Your task to perform on an android device: turn on translation in the chrome app Image 0: 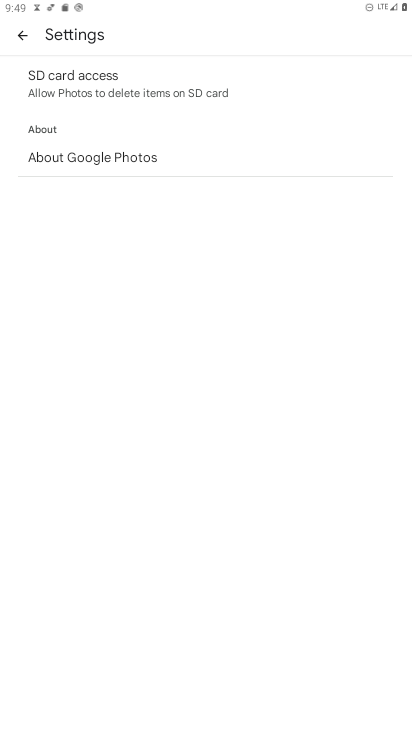
Step 0: press home button
Your task to perform on an android device: turn on translation in the chrome app Image 1: 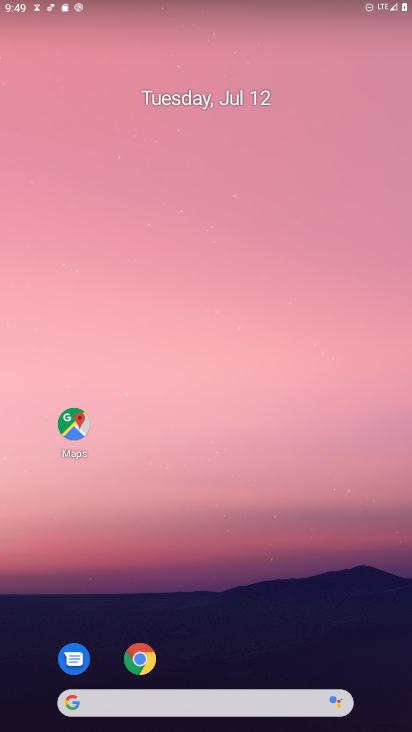
Step 1: click (140, 659)
Your task to perform on an android device: turn on translation in the chrome app Image 2: 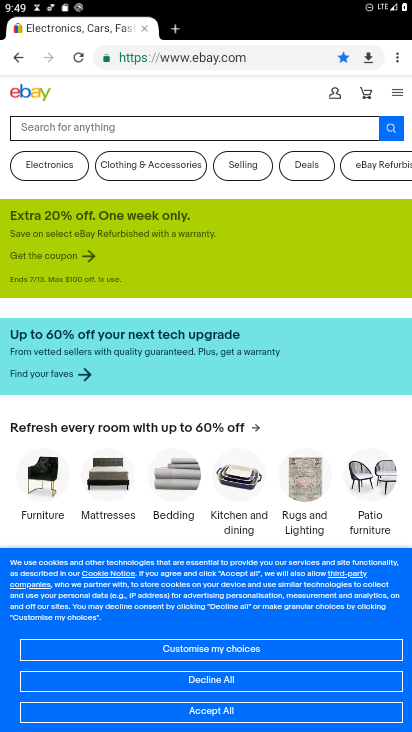
Step 2: click (396, 57)
Your task to perform on an android device: turn on translation in the chrome app Image 3: 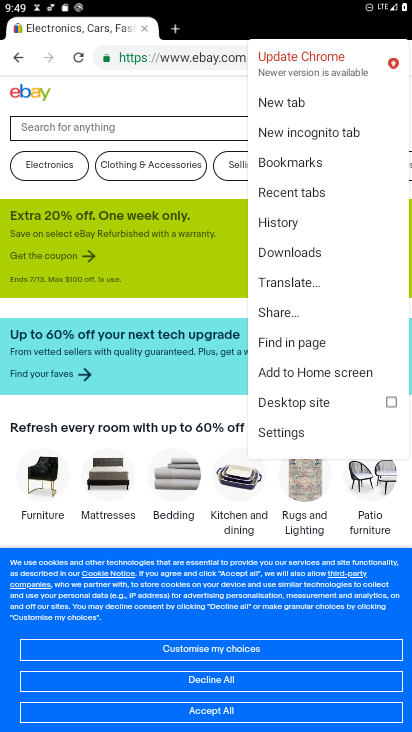
Step 3: click (295, 431)
Your task to perform on an android device: turn on translation in the chrome app Image 4: 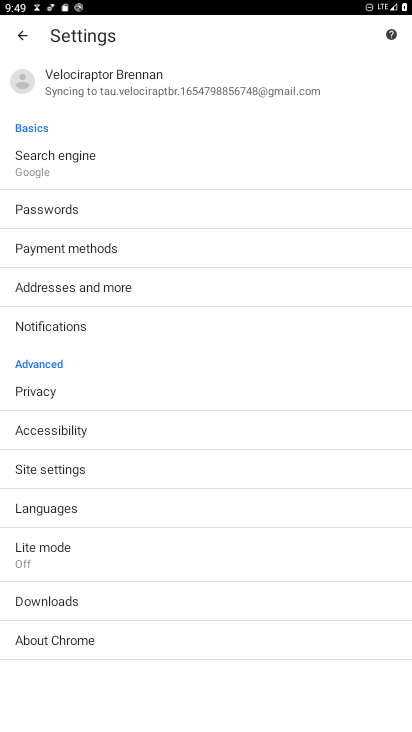
Step 4: click (53, 509)
Your task to perform on an android device: turn on translation in the chrome app Image 5: 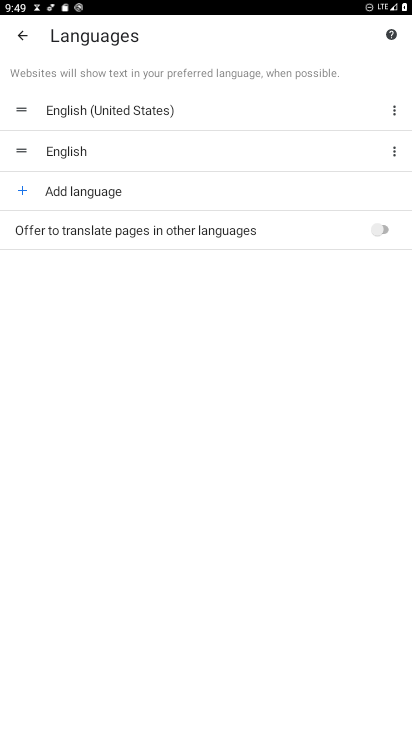
Step 5: click (380, 227)
Your task to perform on an android device: turn on translation in the chrome app Image 6: 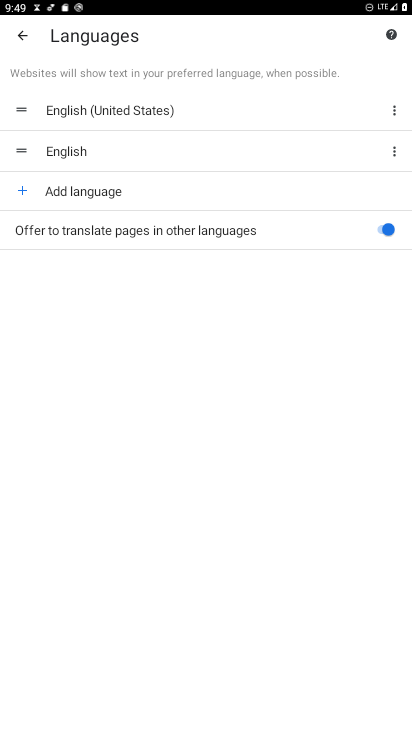
Step 6: task complete